Your task to perform on an android device: Open sound settings Image 0: 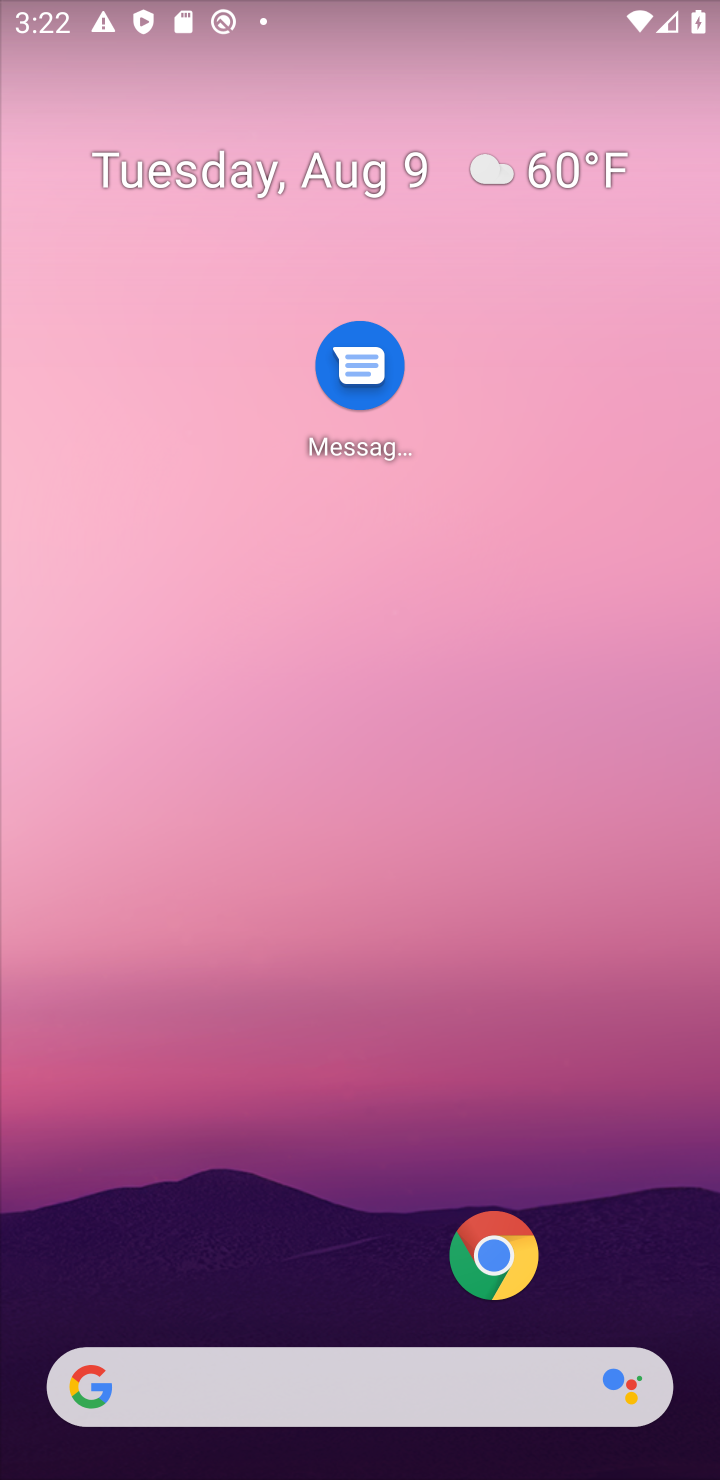
Step 0: drag from (387, 1331) to (469, 347)
Your task to perform on an android device: Open sound settings Image 1: 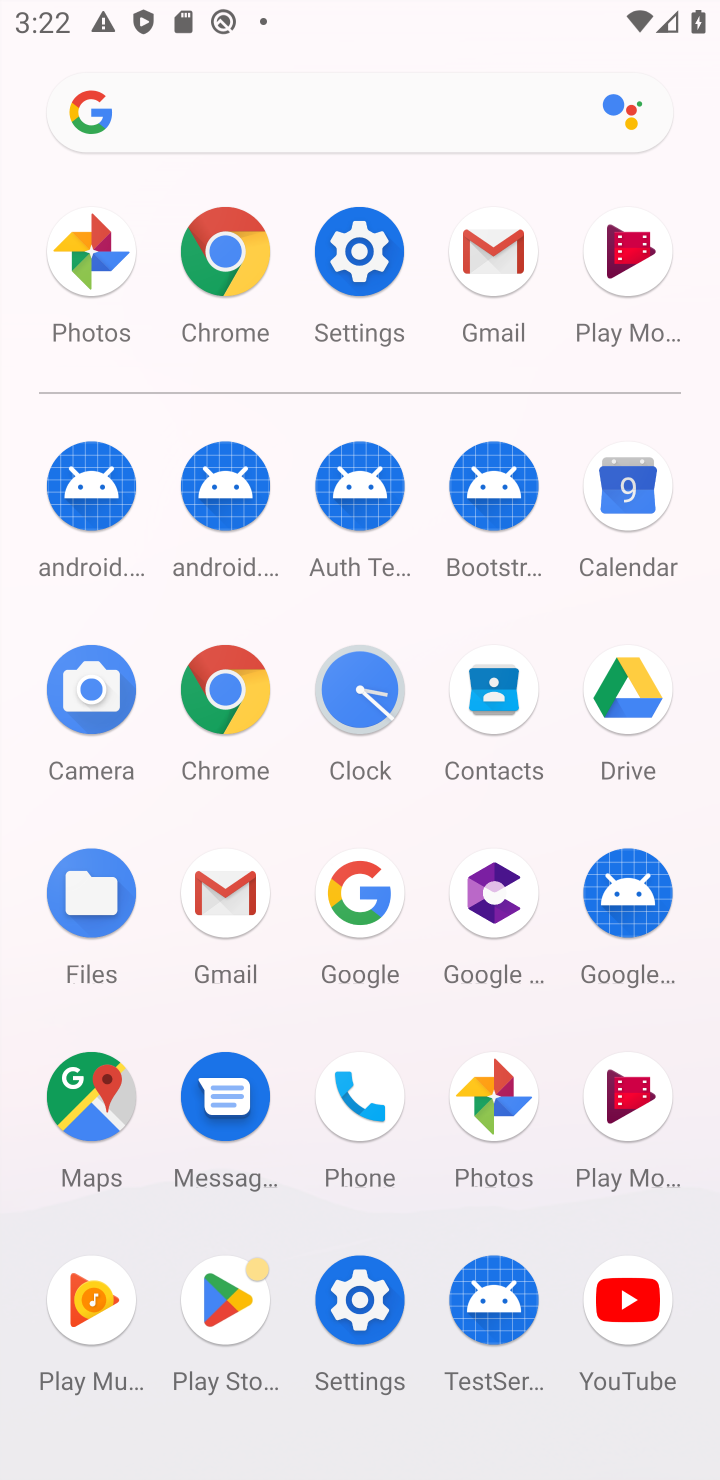
Step 1: click (335, 255)
Your task to perform on an android device: Open sound settings Image 2: 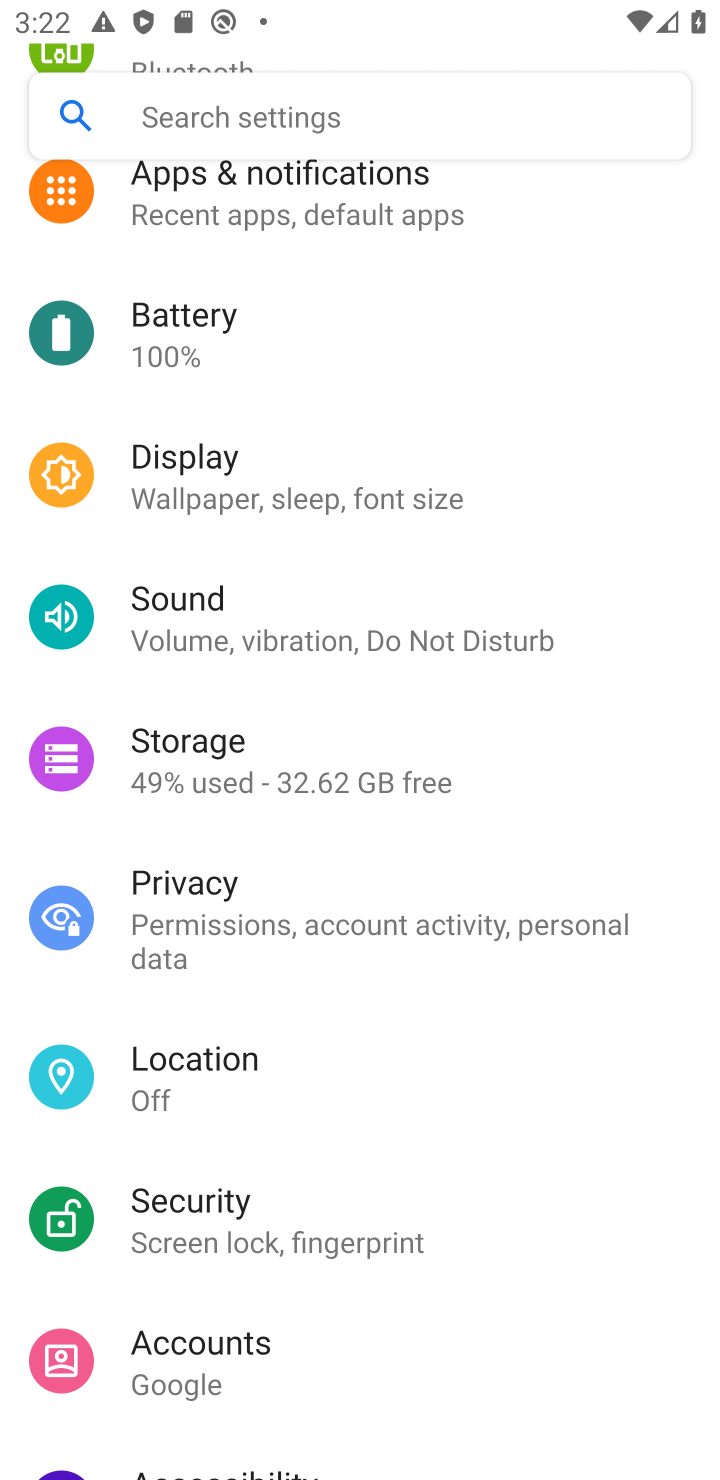
Step 2: click (232, 649)
Your task to perform on an android device: Open sound settings Image 3: 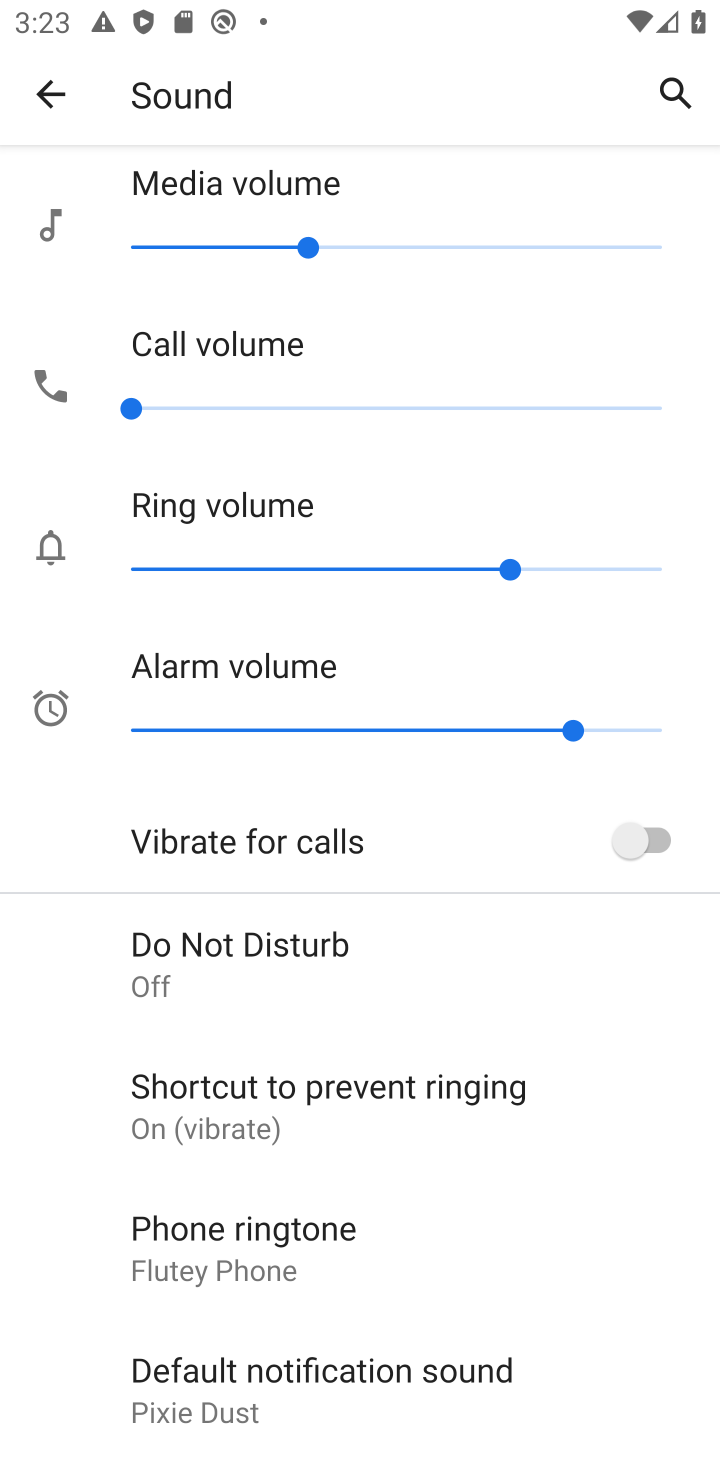
Step 3: task complete